Your task to perform on an android device: Go to settings Image 0: 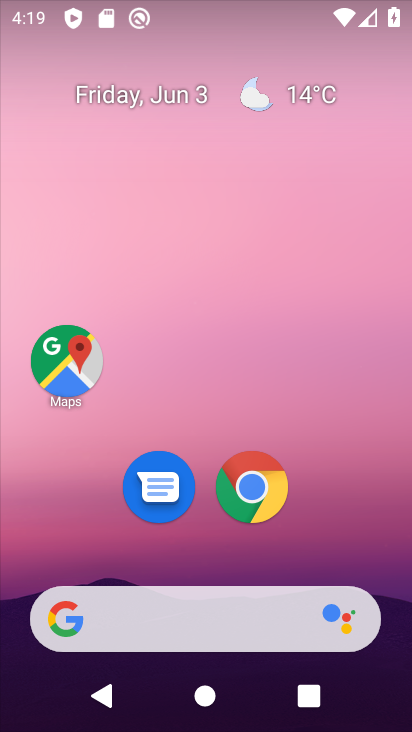
Step 0: drag from (152, 499) to (226, 75)
Your task to perform on an android device: Go to settings Image 1: 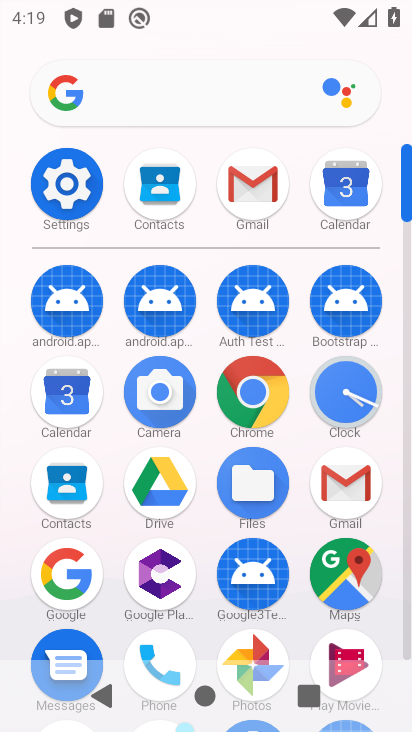
Step 1: click (61, 196)
Your task to perform on an android device: Go to settings Image 2: 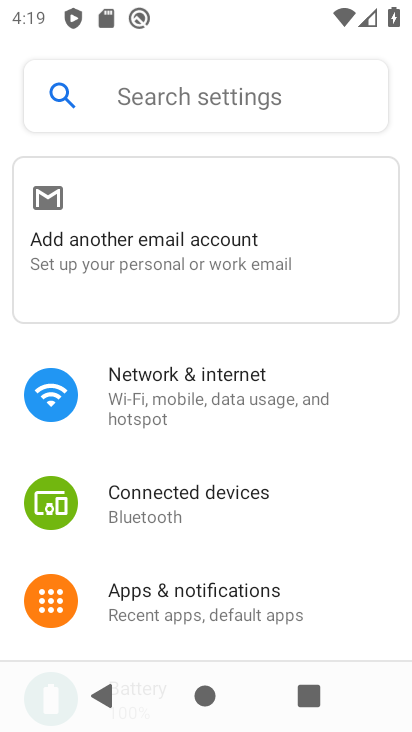
Step 2: task complete